Your task to perform on an android device: turn on wifi Image 0: 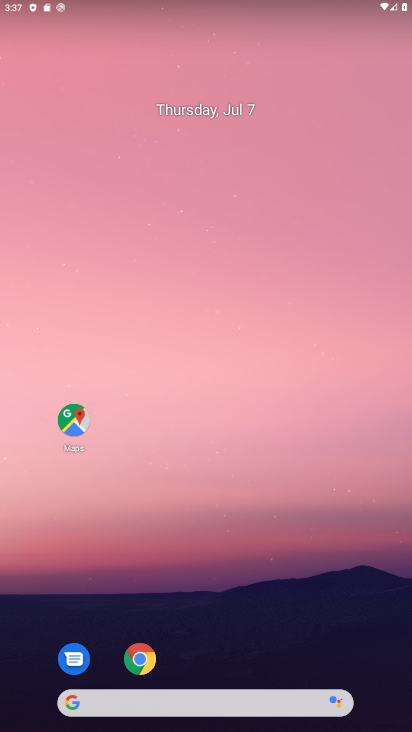
Step 0: drag from (198, 598) to (236, 58)
Your task to perform on an android device: turn on wifi Image 1: 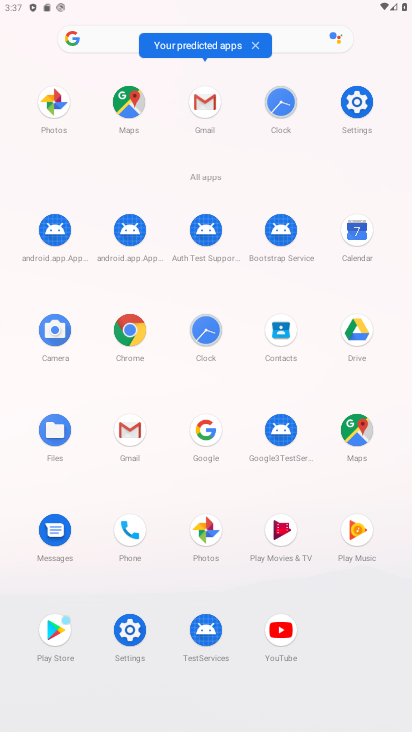
Step 1: click (128, 628)
Your task to perform on an android device: turn on wifi Image 2: 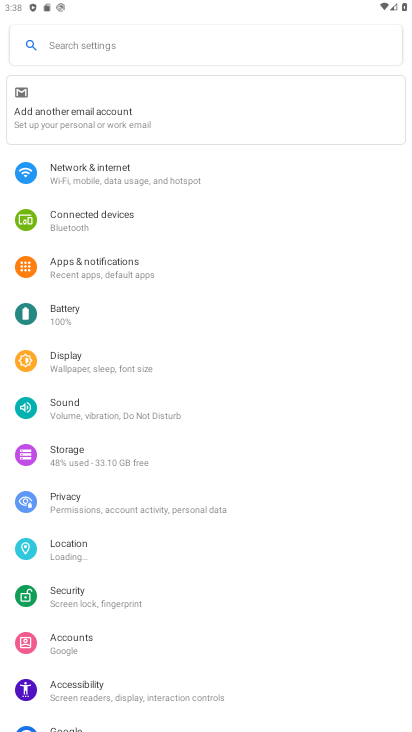
Step 2: click (151, 182)
Your task to perform on an android device: turn on wifi Image 3: 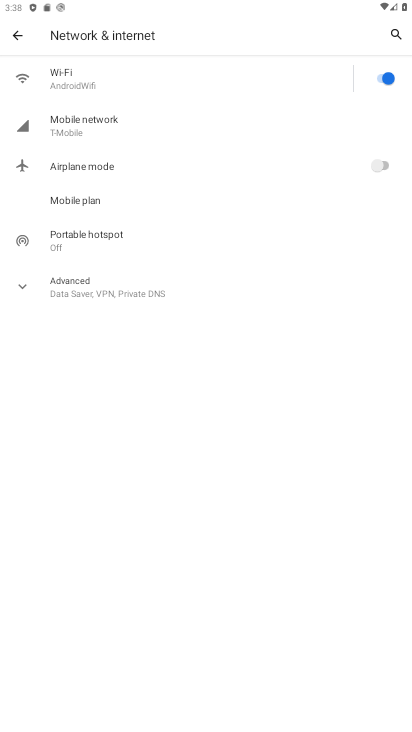
Step 3: task complete